Your task to perform on an android device: Open calendar and show me the third week of next month Image 0: 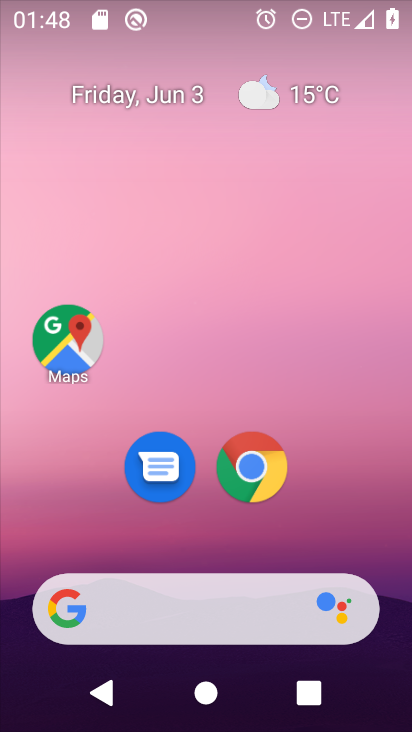
Step 0: drag from (398, 619) to (336, 101)
Your task to perform on an android device: Open calendar and show me the third week of next month Image 1: 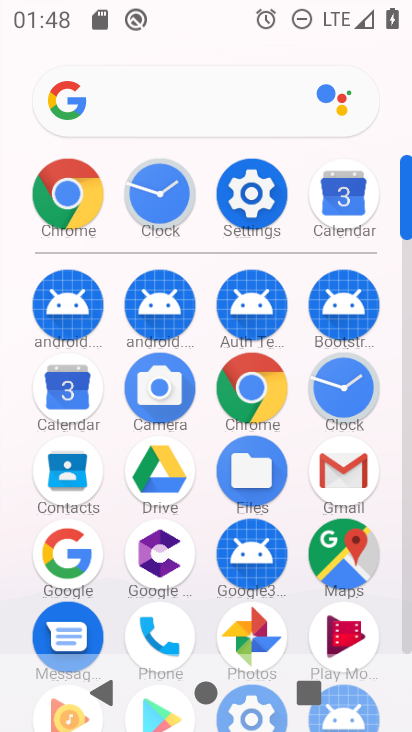
Step 1: click (408, 634)
Your task to perform on an android device: Open calendar and show me the third week of next month Image 2: 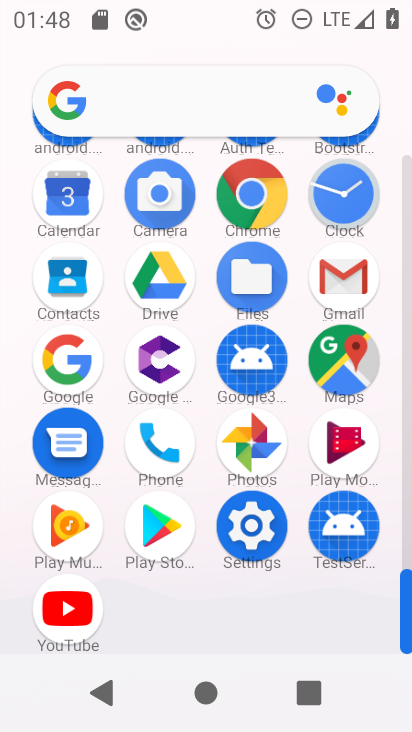
Step 2: click (65, 195)
Your task to perform on an android device: Open calendar and show me the third week of next month Image 3: 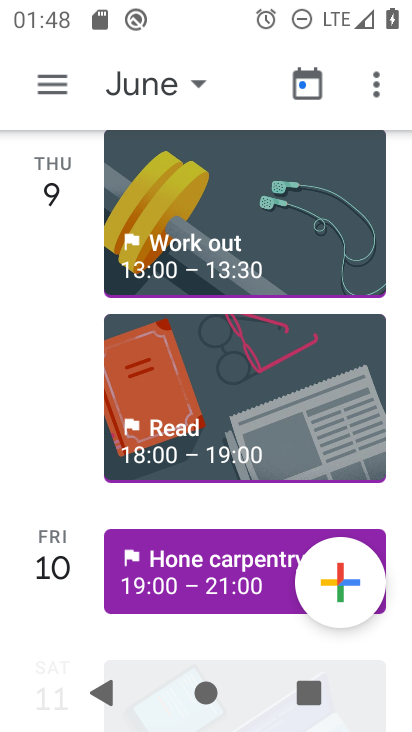
Step 3: click (47, 88)
Your task to perform on an android device: Open calendar and show me the third week of next month Image 4: 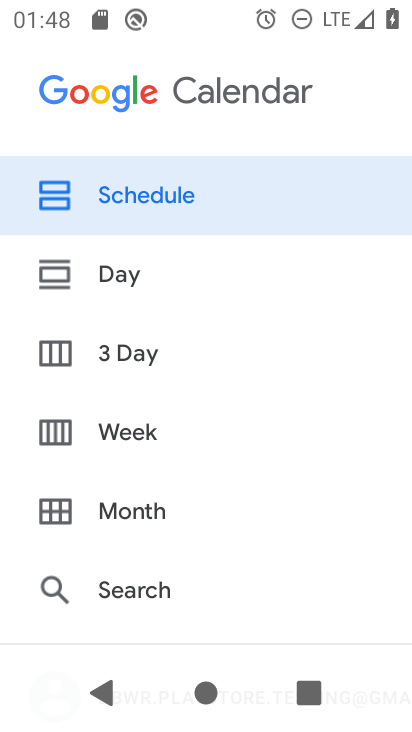
Step 4: click (140, 432)
Your task to perform on an android device: Open calendar and show me the third week of next month Image 5: 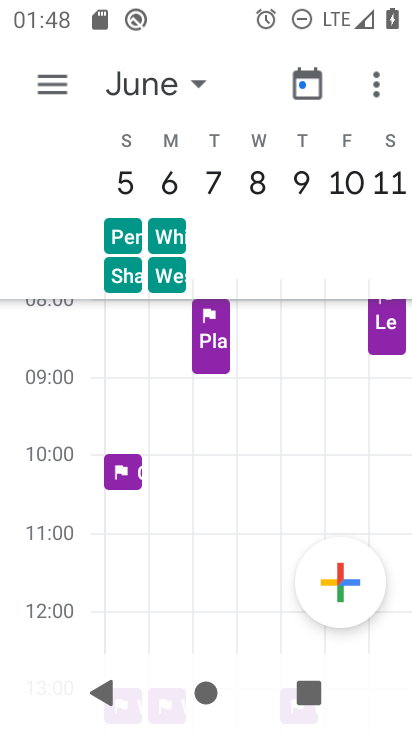
Step 5: click (199, 84)
Your task to perform on an android device: Open calendar and show me the third week of next month Image 6: 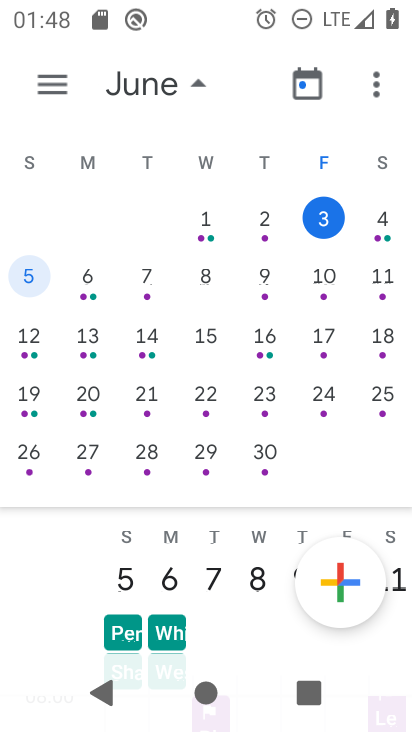
Step 6: drag from (379, 296) to (16, 333)
Your task to perform on an android device: Open calendar and show me the third week of next month Image 7: 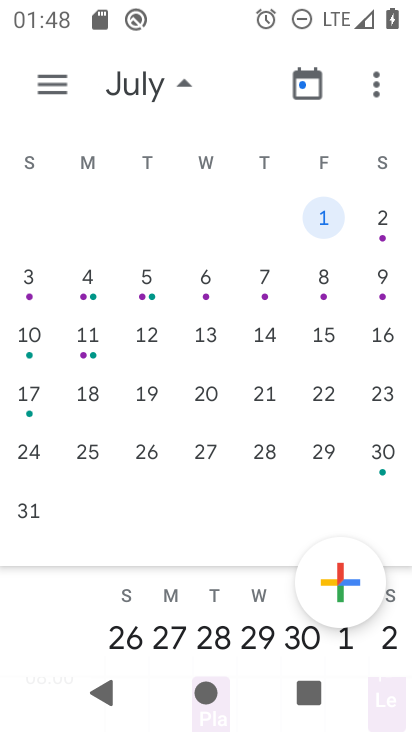
Step 7: click (37, 391)
Your task to perform on an android device: Open calendar and show me the third week of next month Image 8: 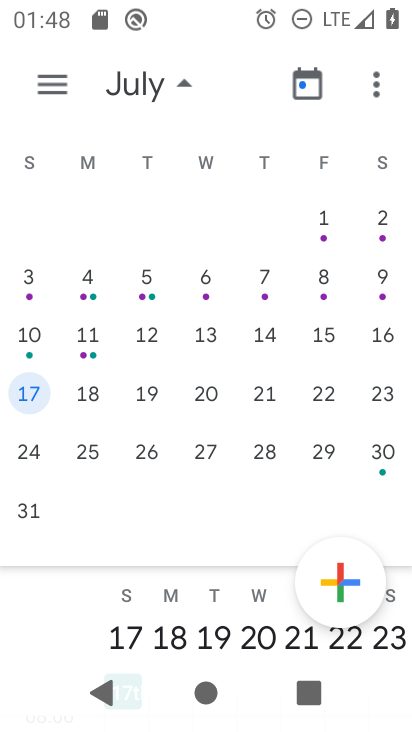
Step 8: task complete